Your task to perform on an android device: turn off priority inbox in the gmail app Image 0: 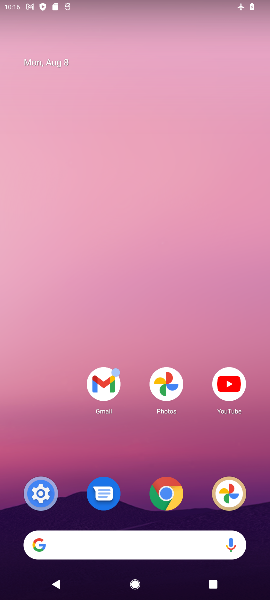
Step 0: press home button
Your task to perform on an android device: turn off priority inbox in the gmail app Image 1: 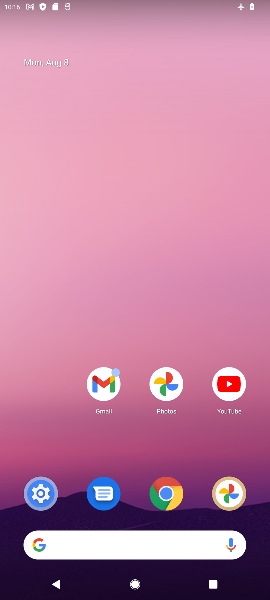
Step 1: drag from (179, 552) to (214, 185)
Your task to perform on an android device: turn off priority inbox in the gmail app Image 2: 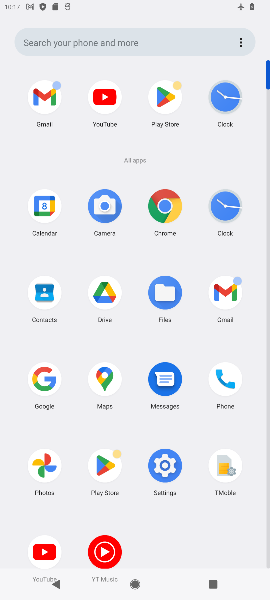
Step 2: drag from (144, 478) to (105, 208)
Your task to perform on an android device: turn off priority inbox in the gmail app Image 3: 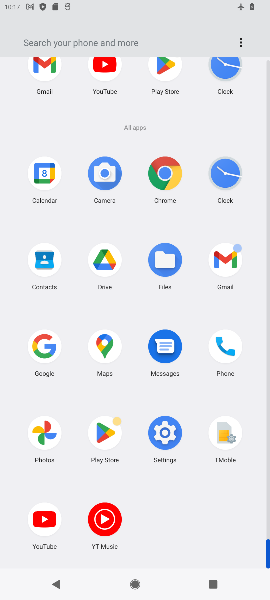
Step 3: click (225, 266)
Your task to perform on an android device: turn off priority inbox in the gmail app Image 4: 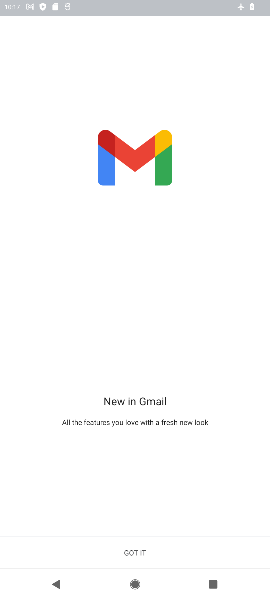
Step 4: click (137, 557)
Your task to perform on an android device: turn off priority inbox in the gmail app Image 5: 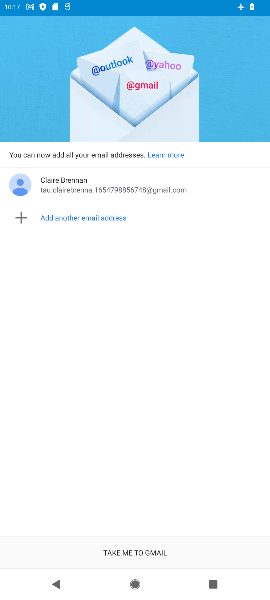
Step 5: click (156, 545)
Your task to perform on an android device: turn off priority inbox in the gmail app Image 6: 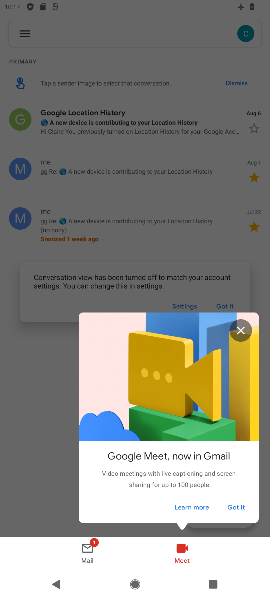
Step 6: click (243, 330)
Your task to perform on an android device: turn off priority inbox in the gmail app Image 7: 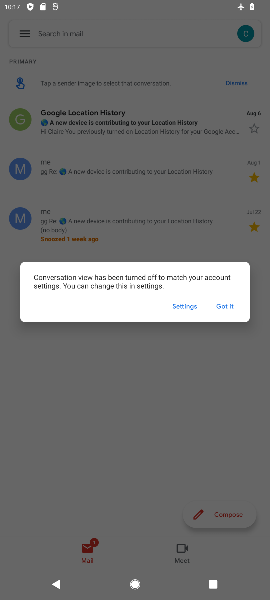
Step 7: click (229, 306)
Your task to perform on an android device: turn off priority inbox in the gmail app Image 8: 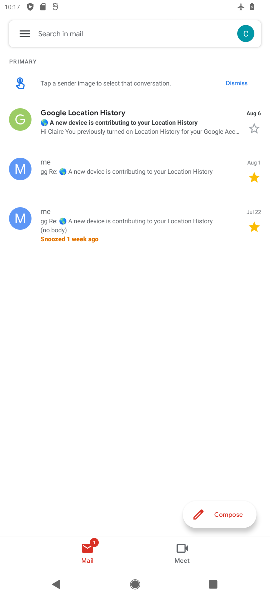
Step 8: click (26, 33)
Your task to perform on an android device: turn off priority inbox in the gmail app Image 9: 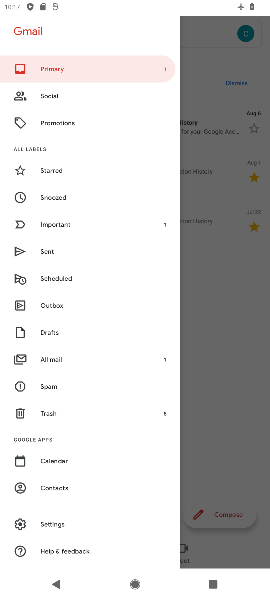
Step 9: drag from (40, 447) to (62, 173)
Your task to perform on an android device: turn off priority inbox in the gmail app Image 10: 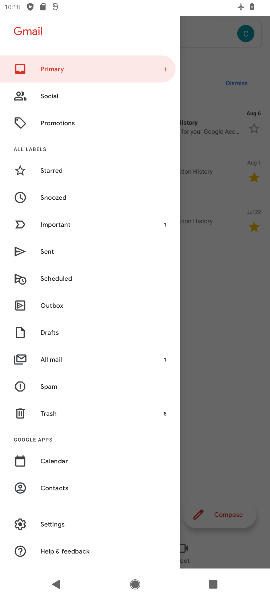
Step 10: click (24, 526)
Your task to perform on an android device: turn off priority inbox in the gmail app Image 11: 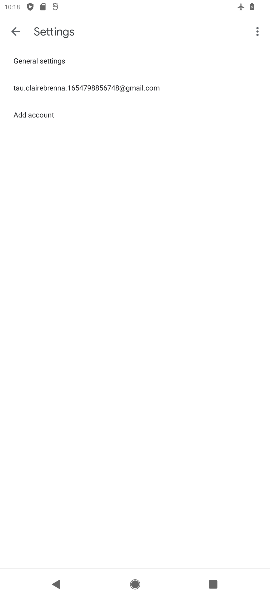
Step 11: click (144, 86)
Your task to perform on an android device: turn off priority inbox in the gmail app Image 12: 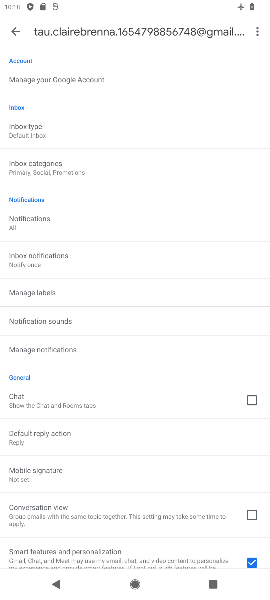
Step 12: click (63, 142)
Your task to perform on an android device: turn off priority inbox in the gmail app Image 13: 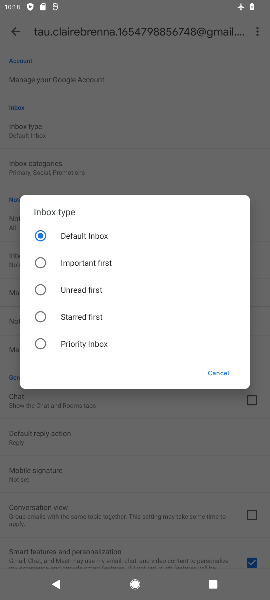
Step 13: task complete